Your task to perform on an android device: change the clock display to analog Image 0: 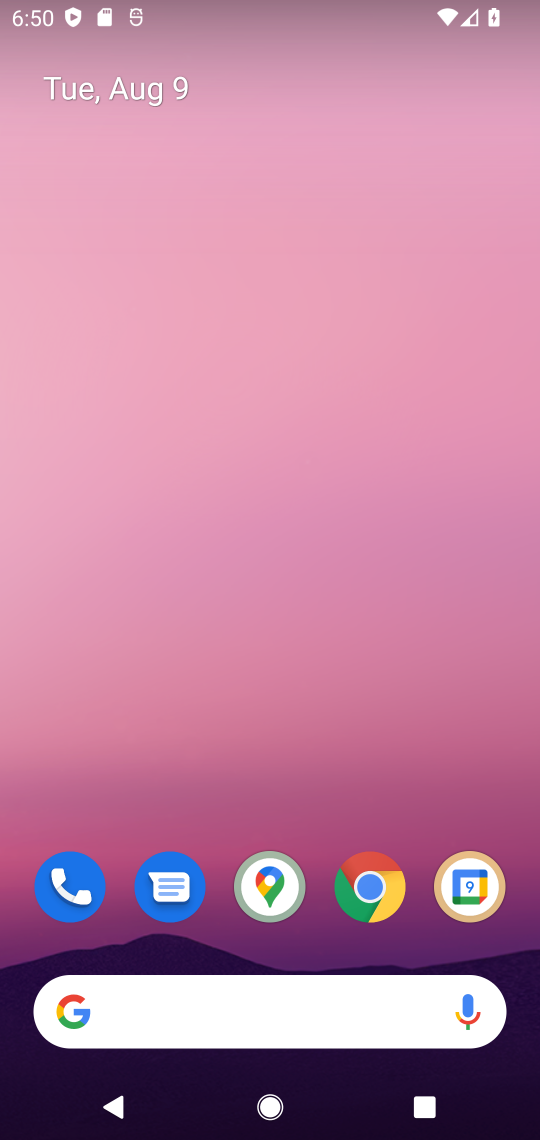
Step 0: drag from (297, 815) to (295, 4)
Your task to perform on an android device: change the clock display to analog Image 1: 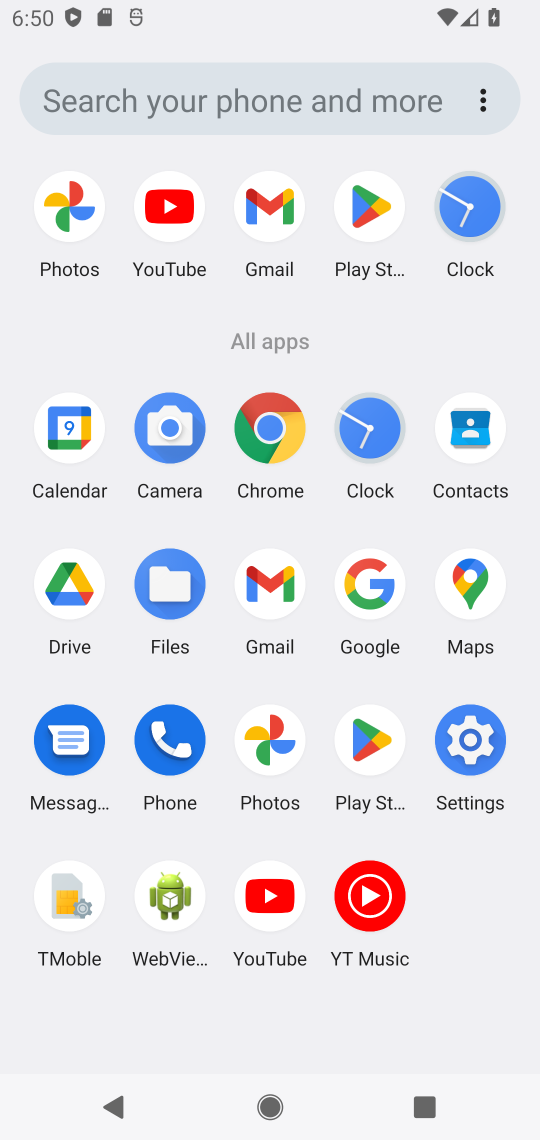
Step 1: click (461, 202)
Your task to perform on an android device: change the clock display to analog Image 2: 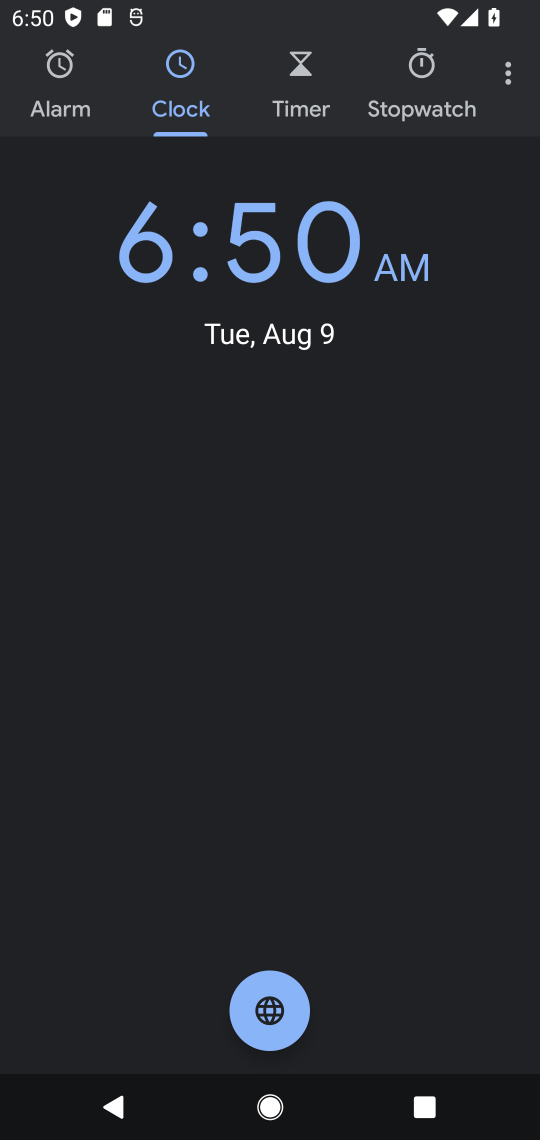
Step 2: click (509, 76)
Your task to perform on an android device: change the clock display to analog Image 3: 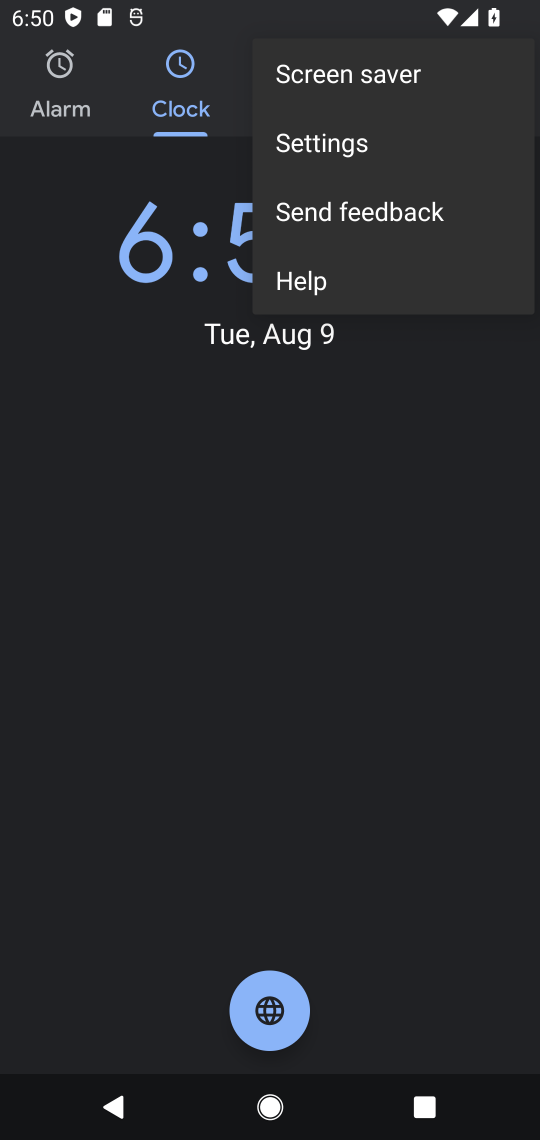
Step 3: click (399, 139)
Your task to perform on an android device: change the clock display to analog Image 4: 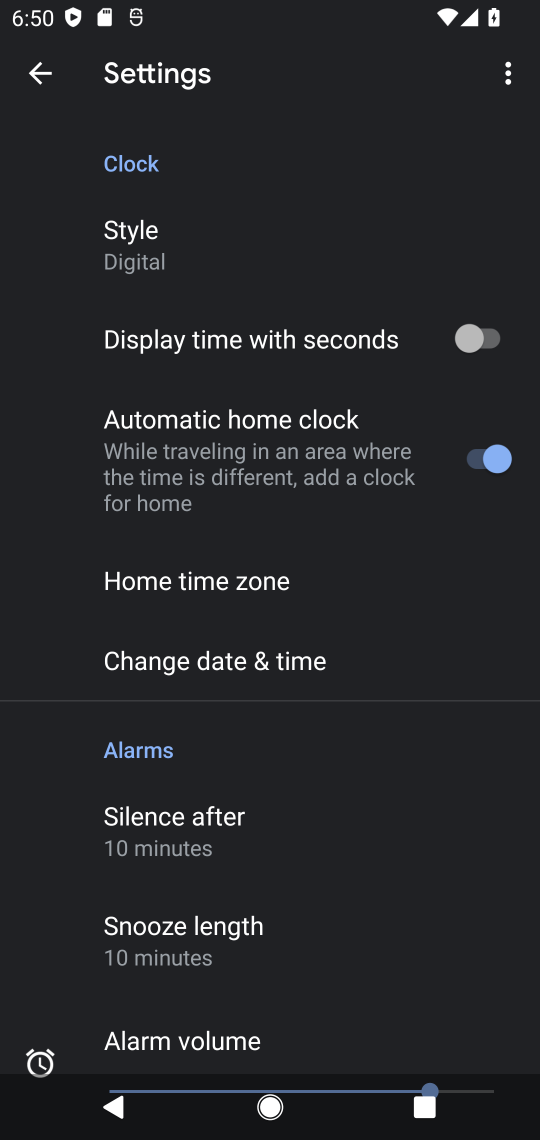
Step 4: click (185, 251)
Your task to perform on an android device: change the clock display to analog Image 5: 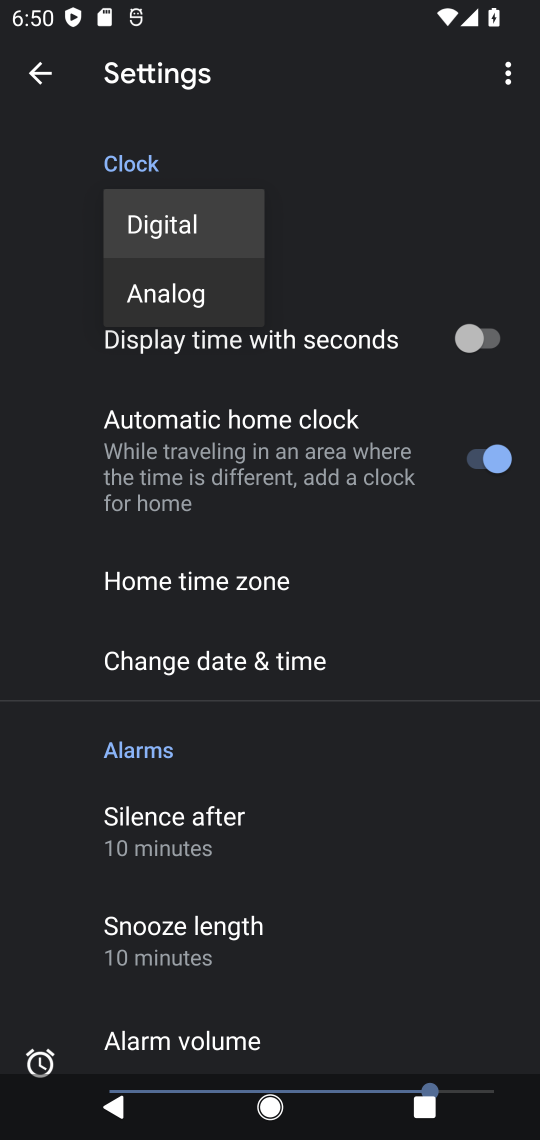
Step 5: click (187, 280)
Your task to perform on an android device: change the clock display to analog Image 6: 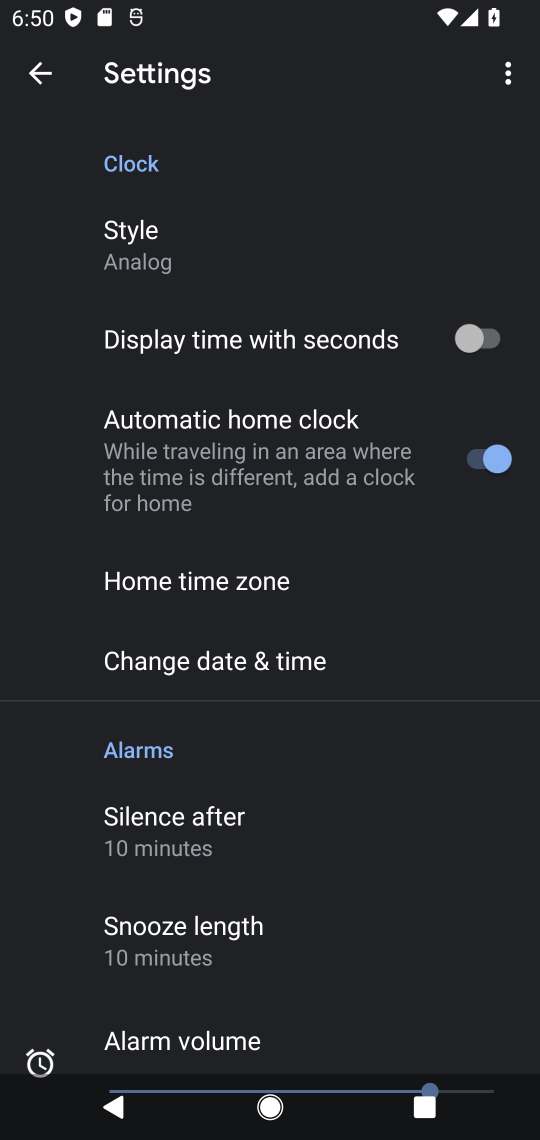
Step 6: click (54, 86)
Your task to perform on an android device: change the clock display to analog Image 7: 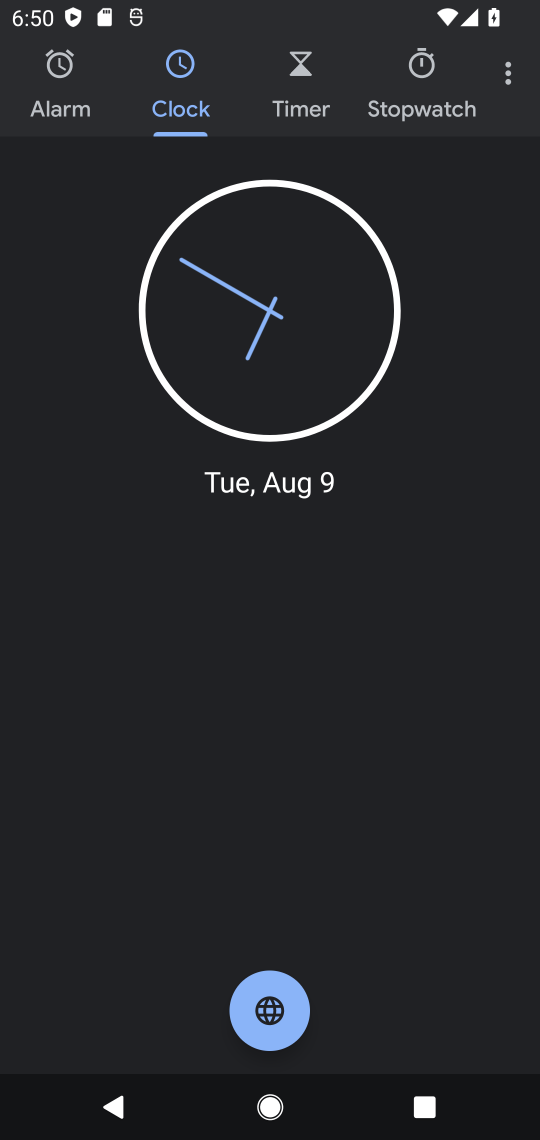
Step 7: task complete